Your task to perform on an android device: Open Google Chrome and click the shortcut for Amazon.com Image 0: 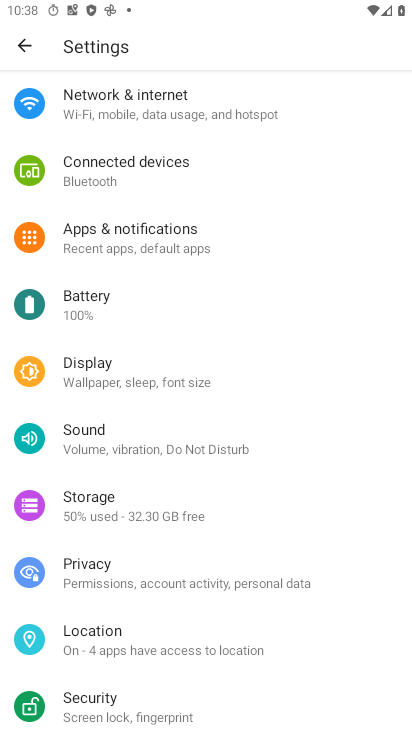
Step 0: press home button
Your task to perform on an android device: Open Google Chrome and click the shortcut for Amazon.com Image 1: 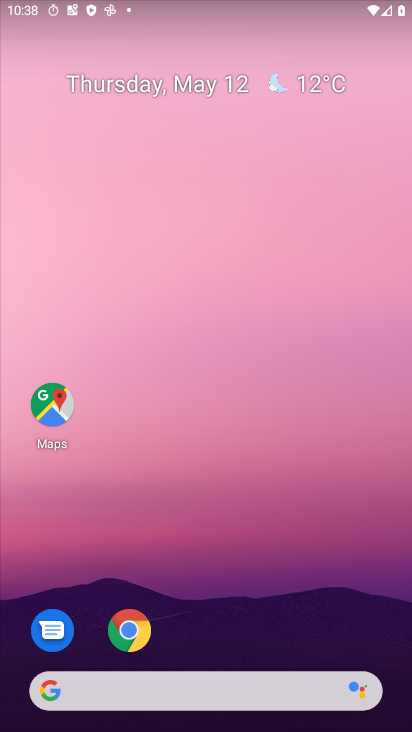
Step 1: click (124, 627)
Your task to perform on an android device: Open Google Chrome and click the shortcut for Amazon.com Image 2: 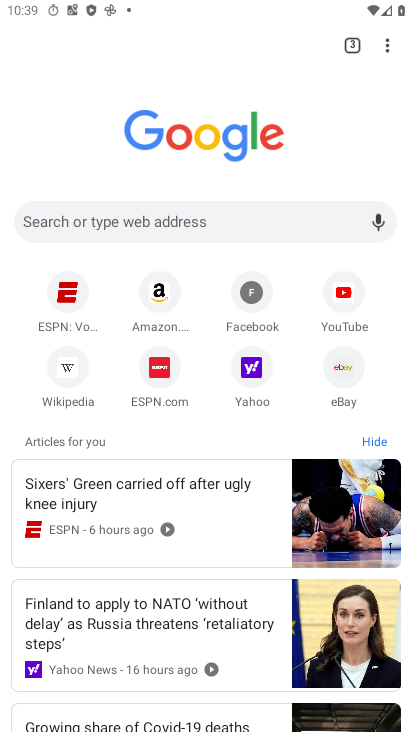
Step 2: click (164, 311)
Your task to perform on an android device: Open Google Chrome and click the shortcut for Amazon.com Image 3: 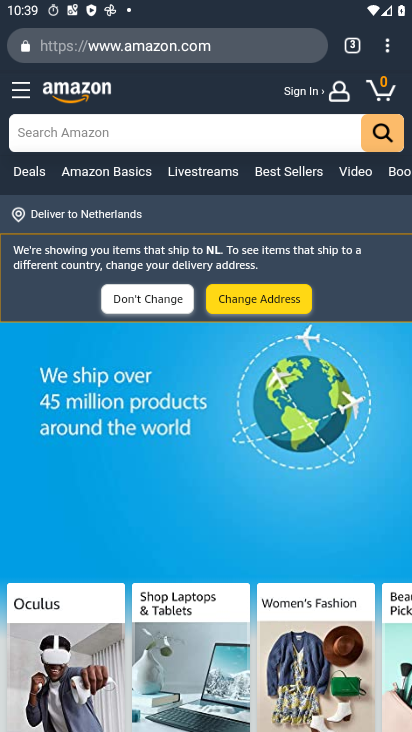
Step 3: task complete